Your task to perform on an android device: Open Google Chrome Image 0: 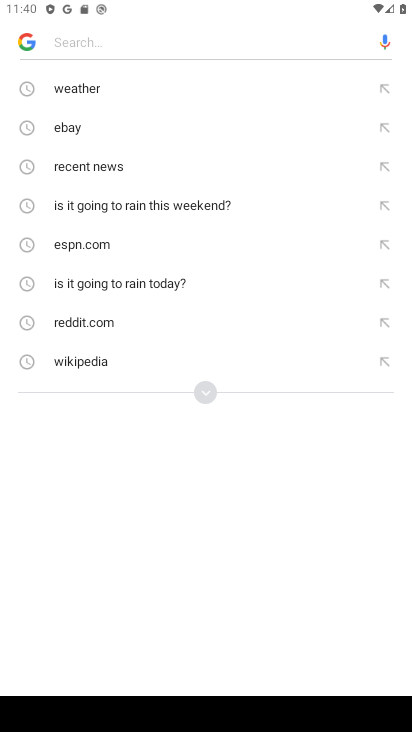
Step 0: press home button
Your task to perform on an android device: Open Google Chrome Image 1: 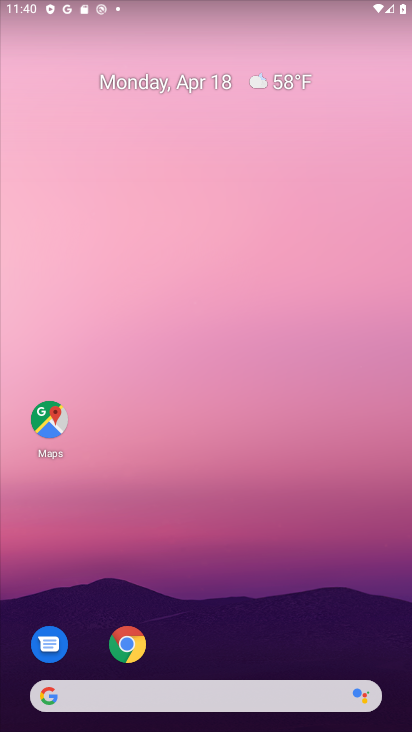
Step 1: click (140, 639)
Your task to perform on an android device: Open Google Chrome Image 2: 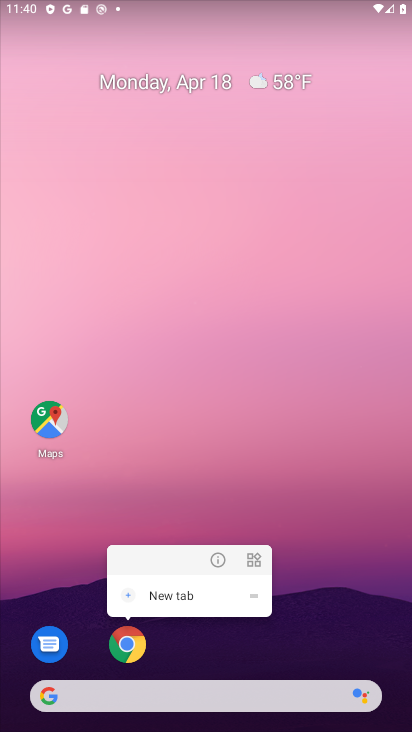
Step 2: click (123, 648)
Your task to perform on an android device: Open Google Chrome Image 3: 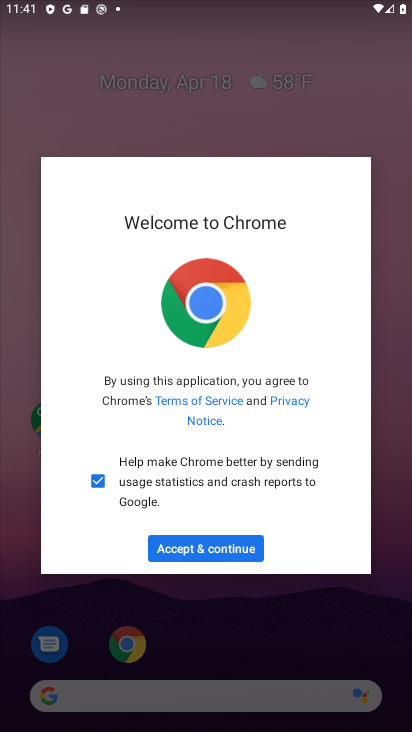
Step 3: click (206, 541)
Your task to perform on an android device: Open Google Chrome Image 4: 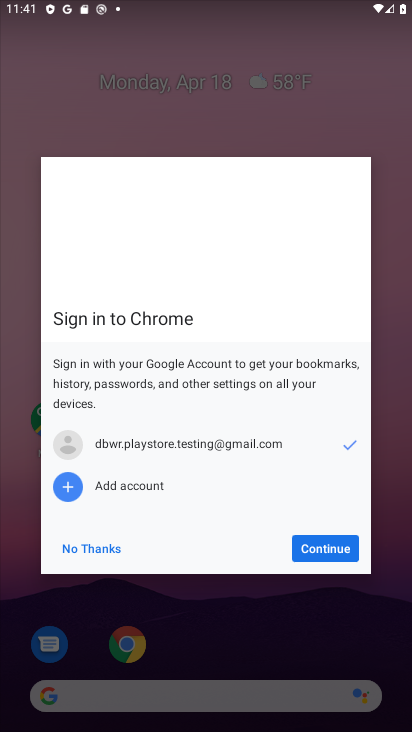
Step 4: click (340, 546)
Your task to perform on an android device: Open Google Chrome Image 5: 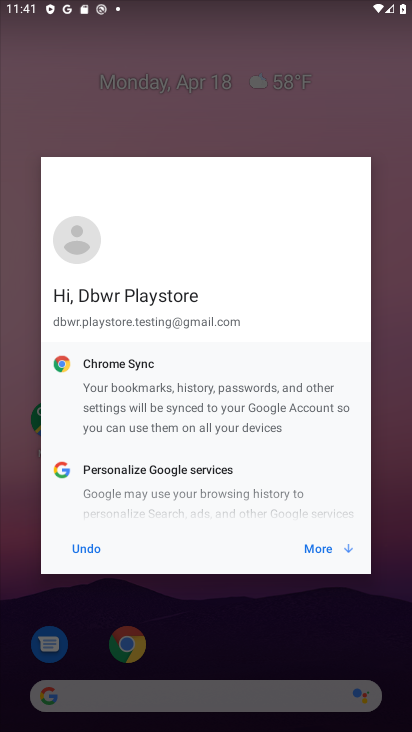
Step 5: click (324, 549)
Your task to perform on an android device: Open Google Chrome Image 6: 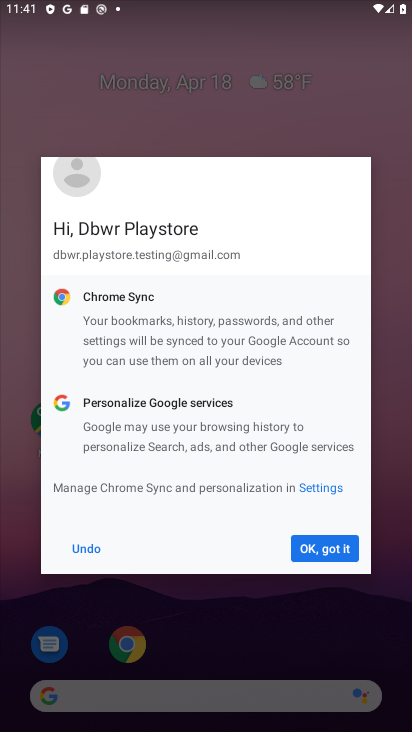
Step 6: click (309, 545)
Your task to perform on an android device: Open Google Chrome Image 7: 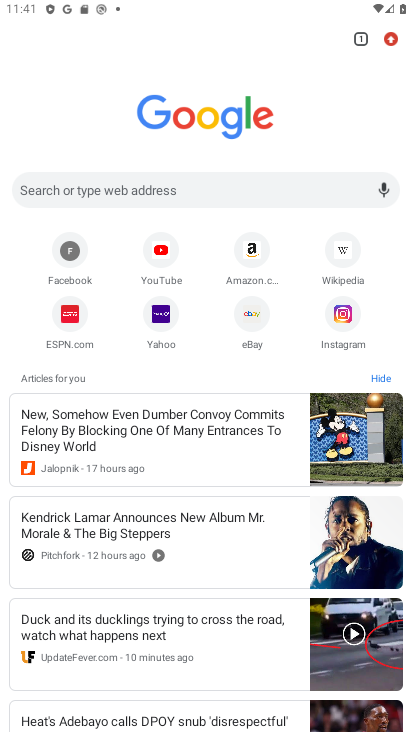
Step 7: task complete